Your task to perform on an android device: Open Chrome and go to the settings page Image 0: 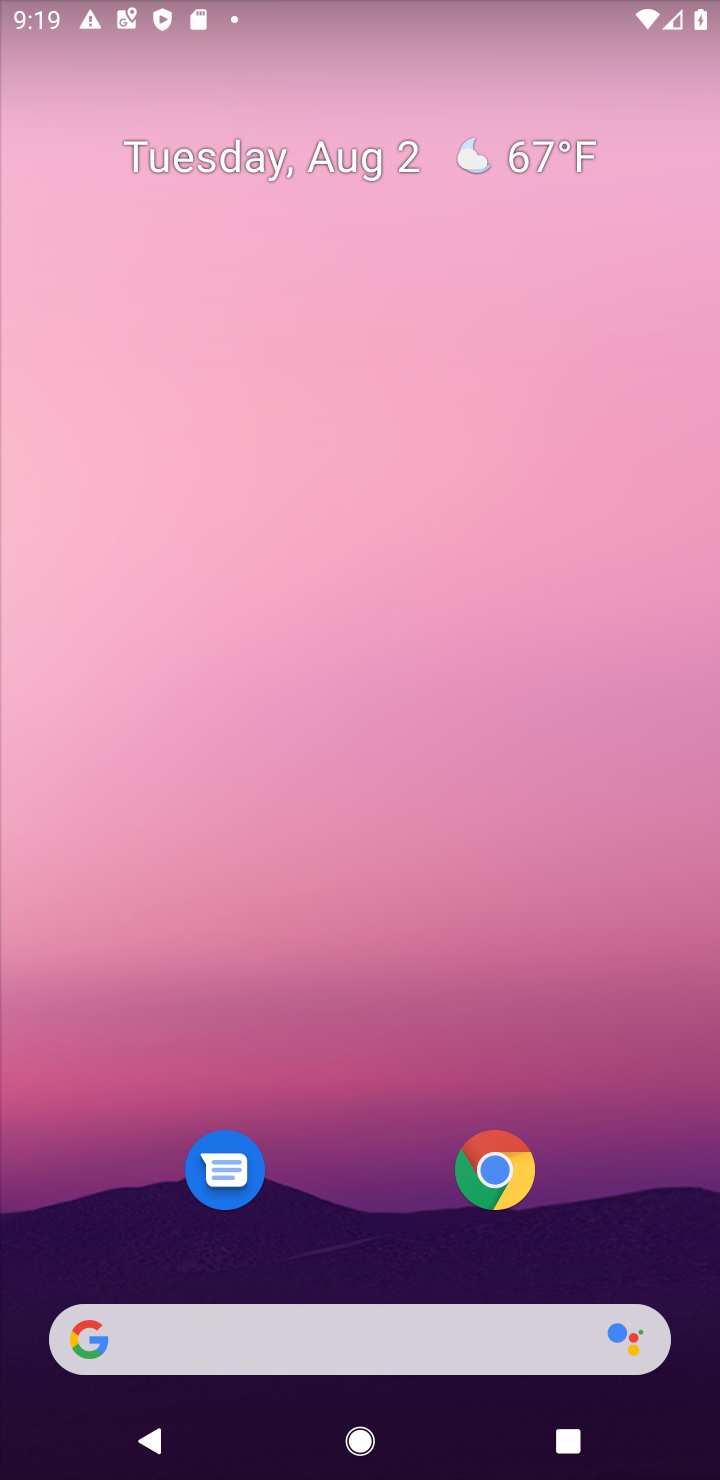
Step 0: click (492, 1184)
Your task to perform on an android device: Open Chrome and go to the settings page Image 1: 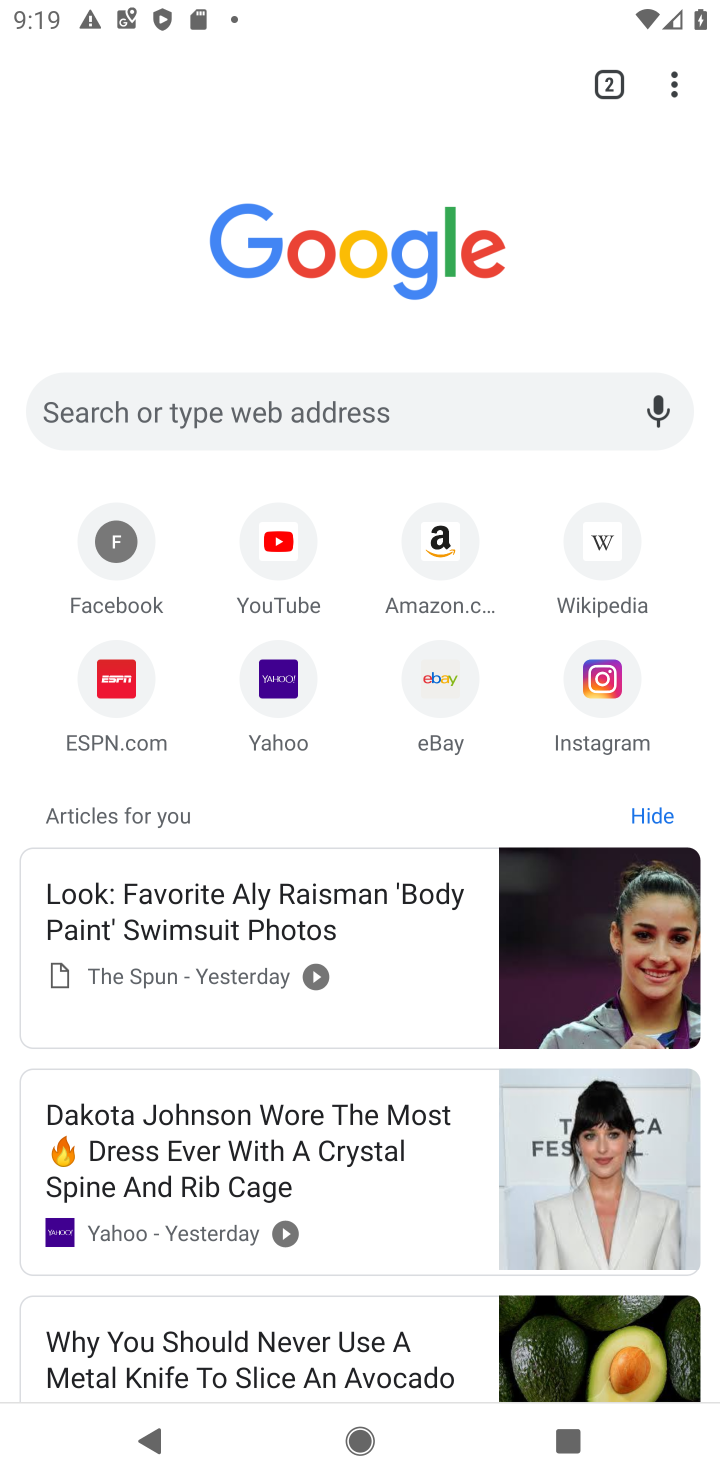
Step 1: click (677, 78)
Your task to perform on an android device: Open Chrome and go to the settings page Image 2: 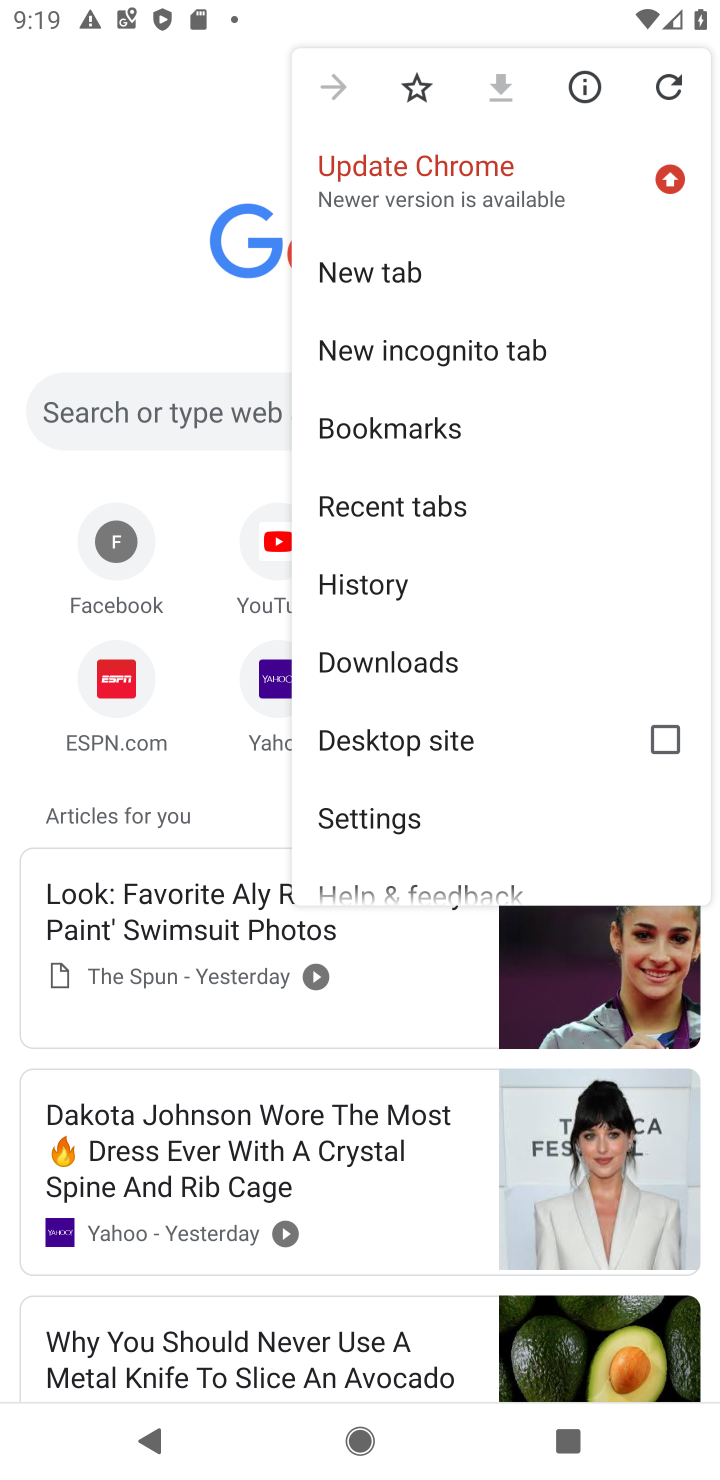
Step 2: click (373, 816)
Your task to perform on an android device: Open Chrome and go to the settings page Image 3: 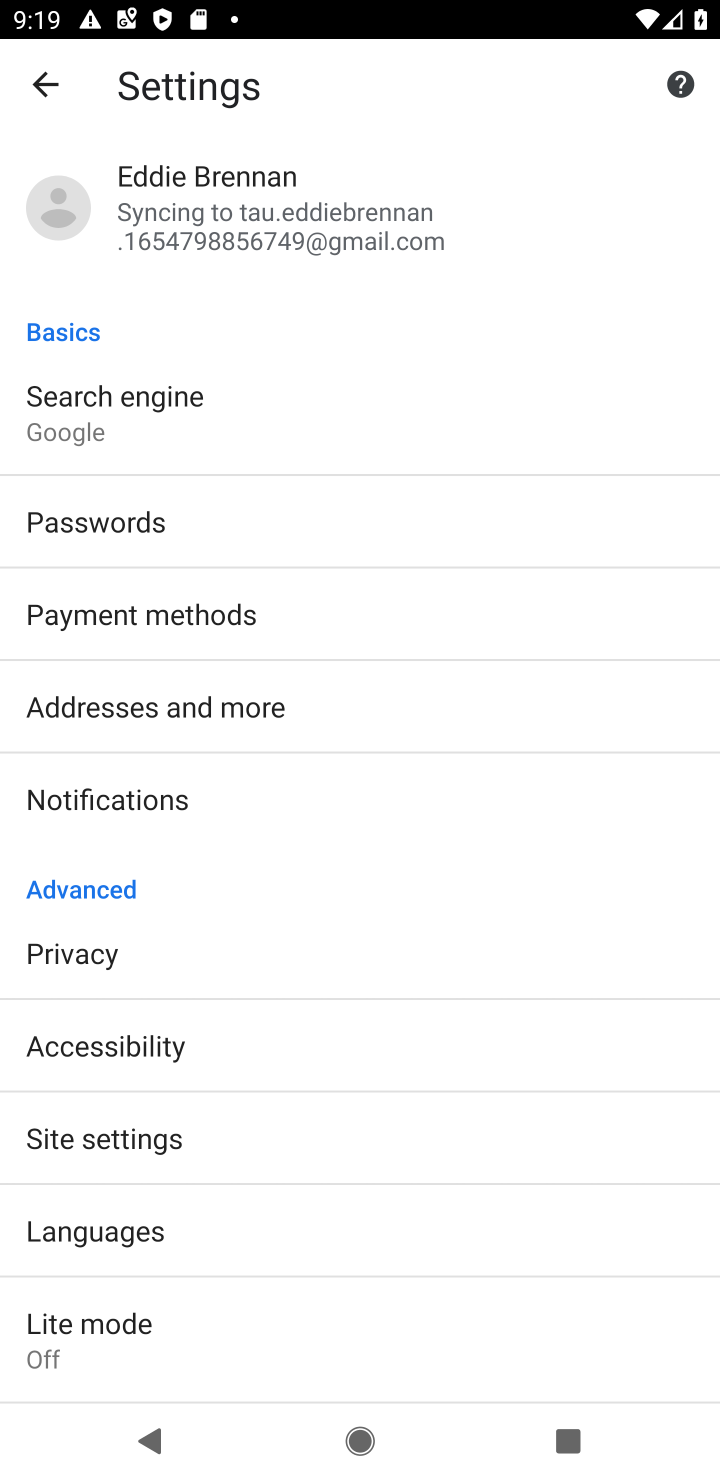
Step 3: task complete